Your task to perform on an android device: refresh tabs in the chrome app Image 0: 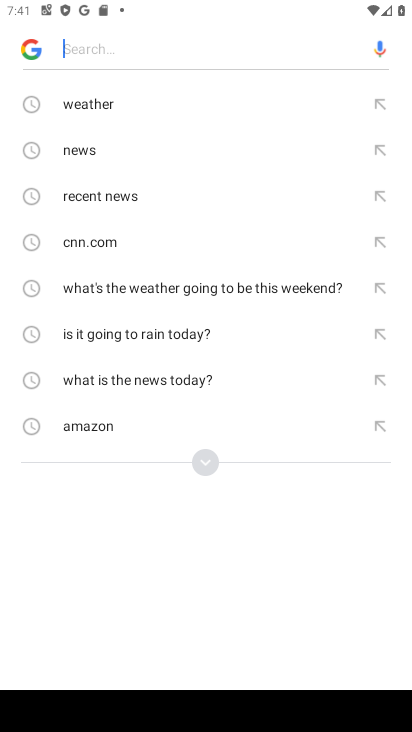
Step 0: press home button
Your task to perform on an android device: refresh tabs in the chrome app Image 1: 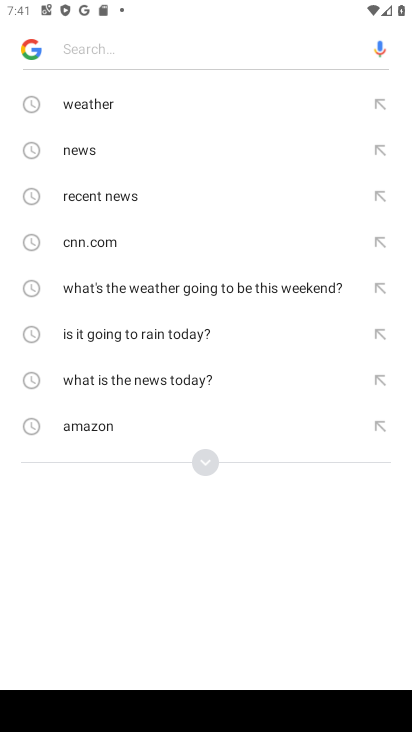
Step 1: press home button
Your task to perform on an android device: refresh tabs in the chrome app Image 2: 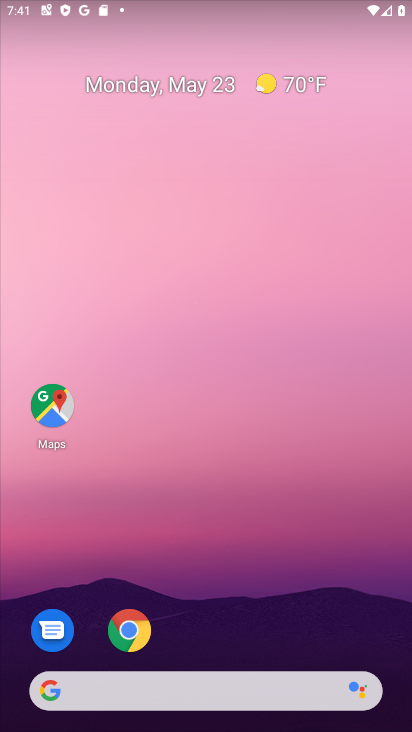
Step 2: click (122, 636)
Your task to perform on an android device: refresh tabs in the chrome app Image 3: 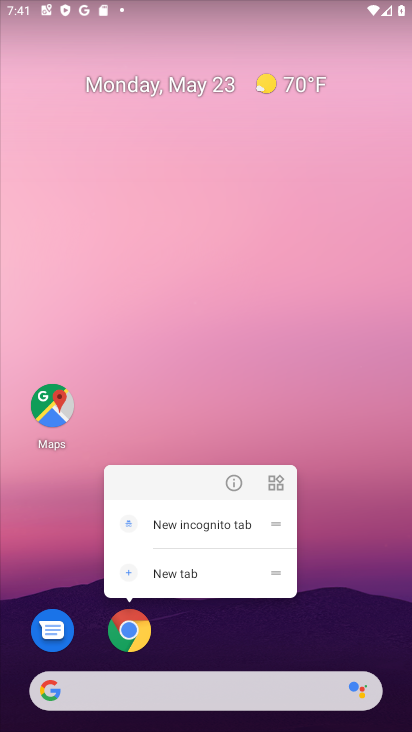
Step 3: click (122, 635)
Your task to perform on an android device: refresh tabs in the chrome app Image 4: 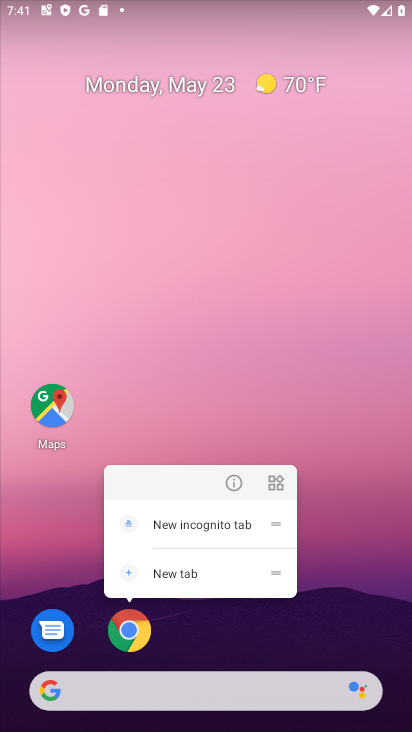
Step 4: click (371, 586)
Your task to perform on an android device: refresh tabs in the chrome app Image 5: 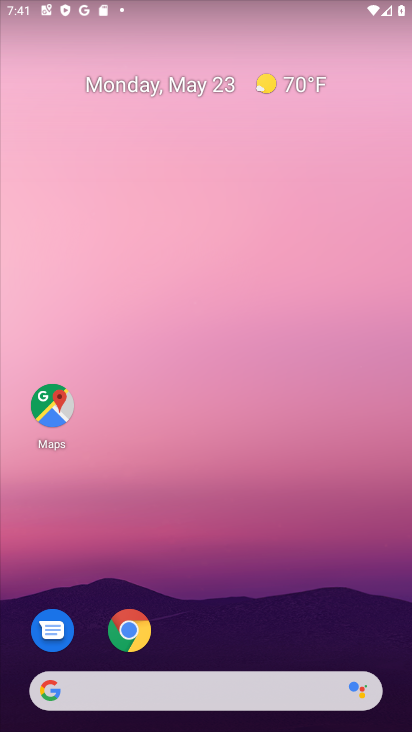
Step 5: drag from (350, 591) to (160, 151)
Your task to perform on an android device: refresh tabs in the chrome app Image 6: 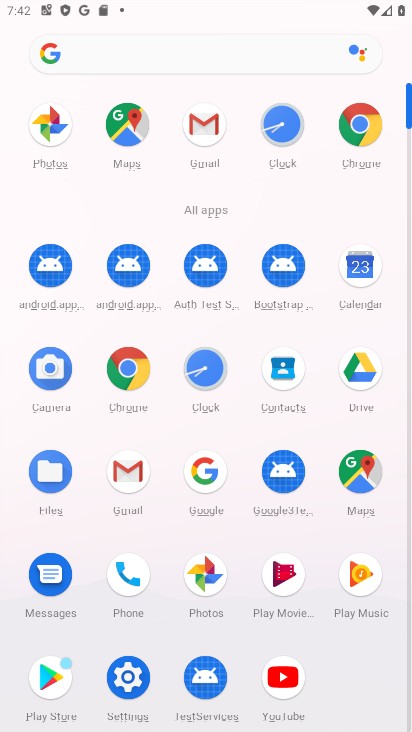
Step 6: click (124, 377)
Your task to perform on an android device: refresh tabs in the chrome app Image 7: 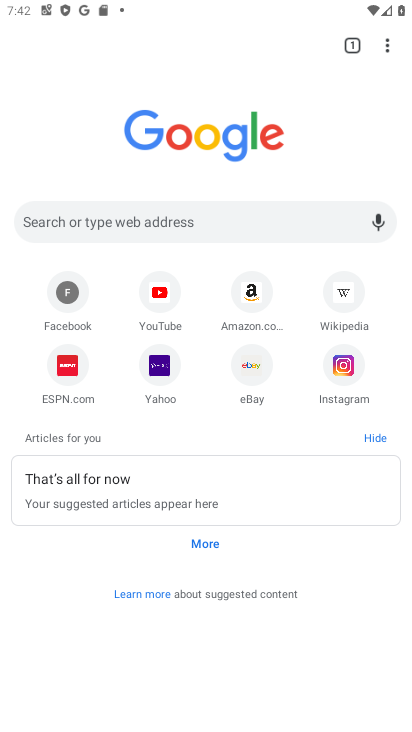
Step 7: click (384, 40)
Your task to perform on an android device: refresh tabs in the chrome app Image 8: 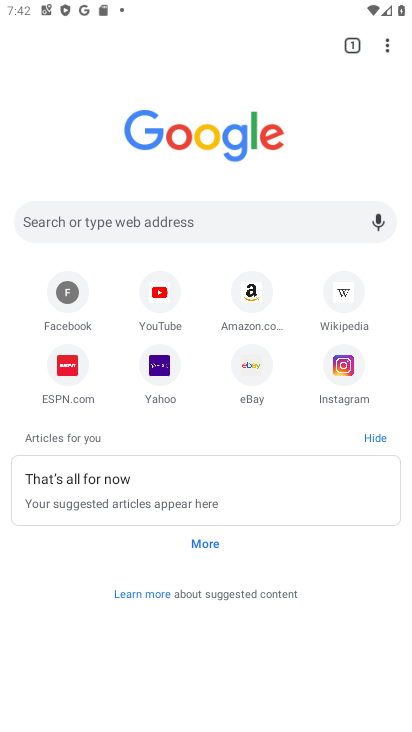
Step 8: task complete